Your task to perform on an android device: Search for Mexican restaurants on Maps Image 0: 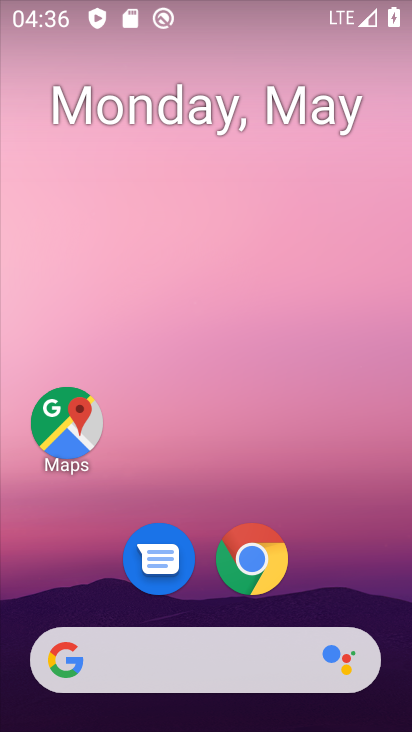
Step 0: drag from (281, 629) to (303, 96)
Your task to perform on an android device: Search for Mexican restaurants on Maps Image 1: 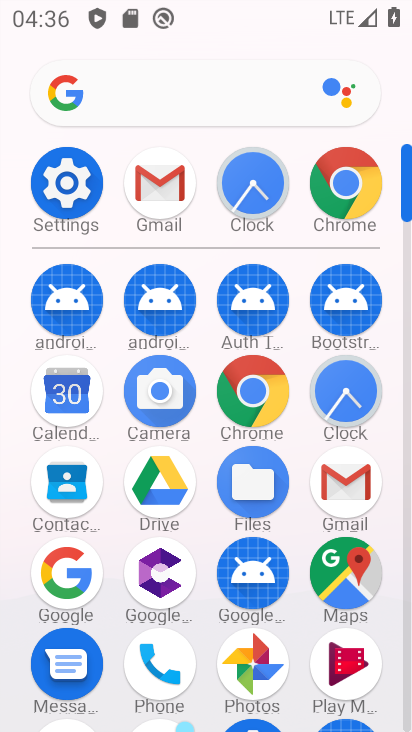
Step 1: click (340, 589)
Your task to perform on an android device: Search for Mexican restaurants on Maps Image 2: 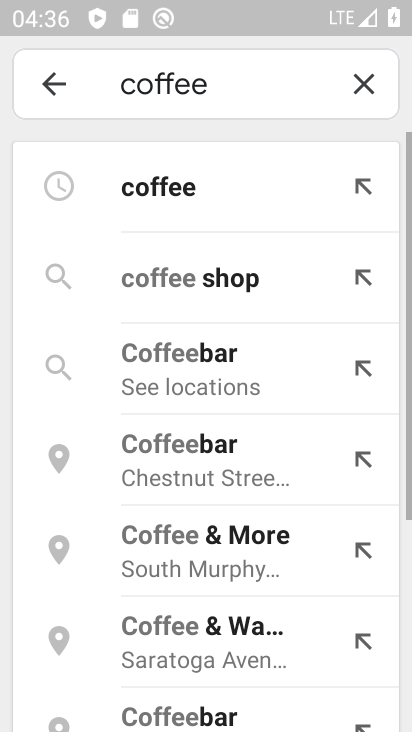
Step 2: click (366, 86)
Your task to perform on an android device: Search for Mexican restaurants on Maps Image 3: 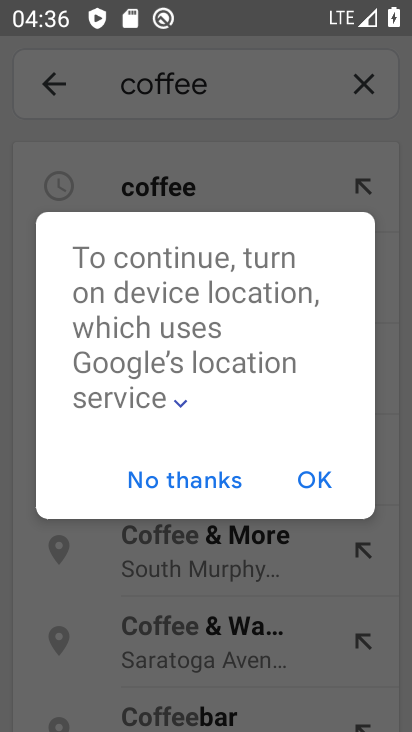
Step 3: click (202, 480)
Your task to perform on an android device: Search for Mexican restaurants on Maps Image 4: 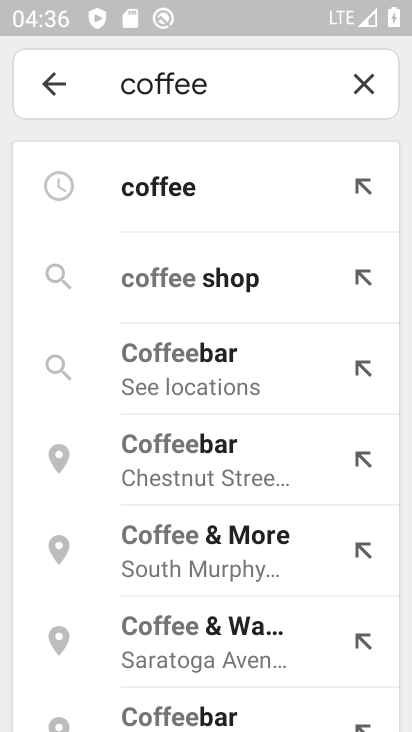
Step 4: click (239, 82)
Your task to perform on an android device: Search for Mexican restaurants on Maps Image 5: 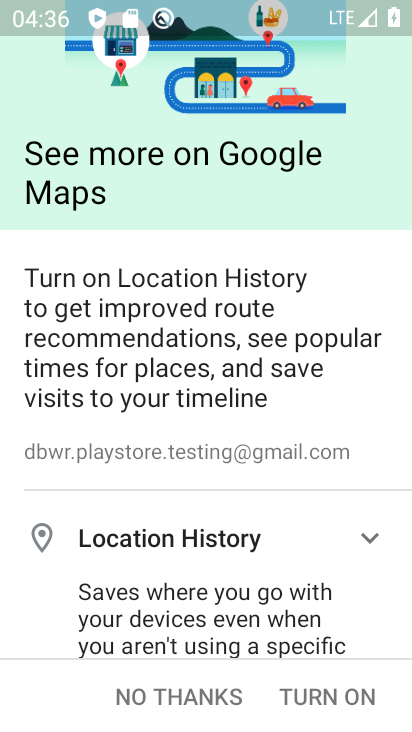
Step 5: click (176, 691)
Your task to perform on an android device: Search for Mexican restaurants on Maps Image 6: 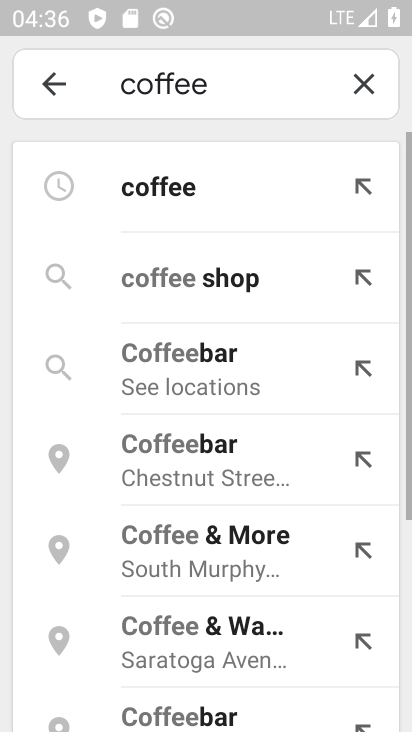
Step 6: click (366, 83)
Your task to perform on an android device: Search for Mexican restaurants on Maps Image 7: 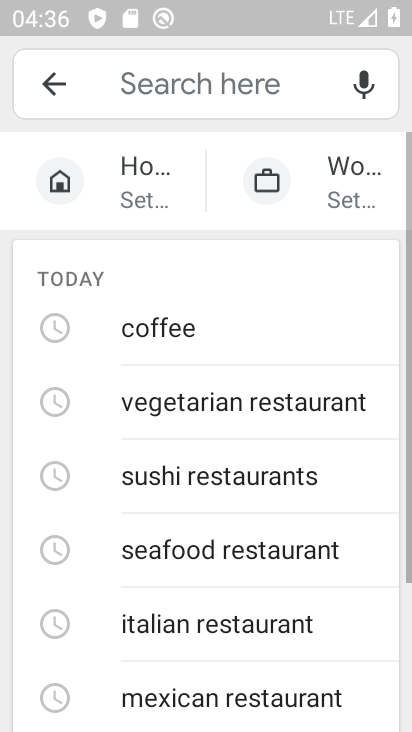
Step 7: click (217, 72)
Your task to perform on an android device: Search for Mexican restaurants on Maps Image 8: 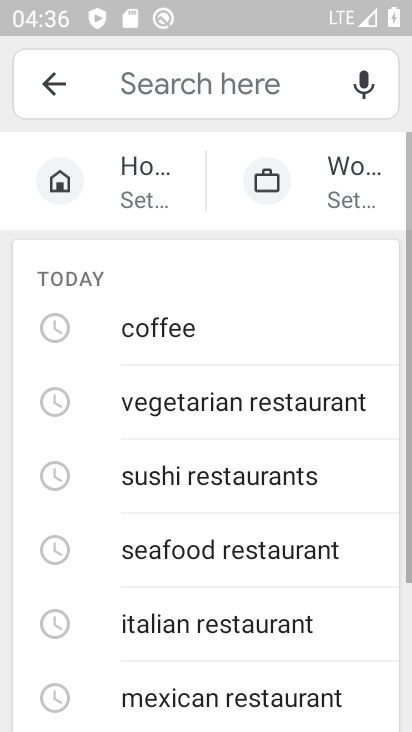
Step 8: click (218, 75)
Your task to perform on an android device: Search for Mexican restaurants on Maps Image 9: 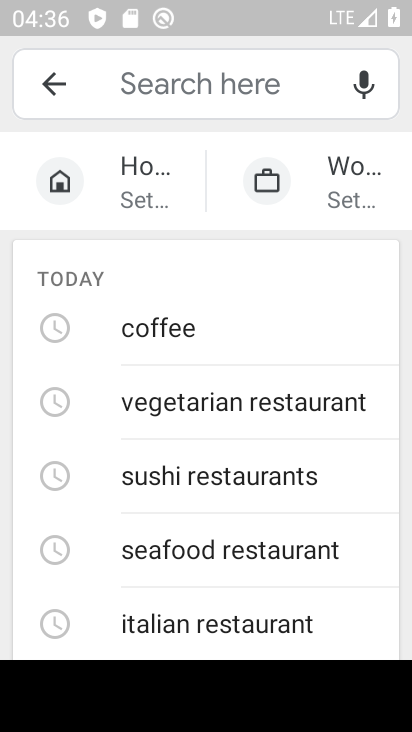
Step 9: type "mexican restaurant"
Your task to perform on an android device: Search for Mexican restaurants on Maps Image 10: 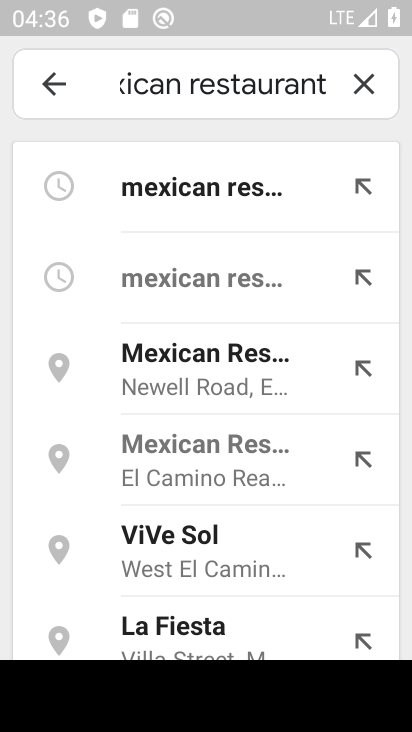
Step 10: click (241, 208)
Your task to perform on an android device: Search for Mexican restaurants on Maps Image 11: 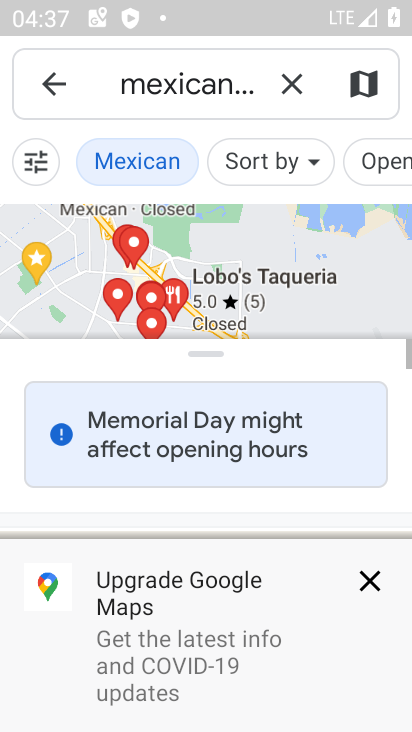
Step 11: task complete